Your task to perform on an android device: Go to privacy settings Image 0: 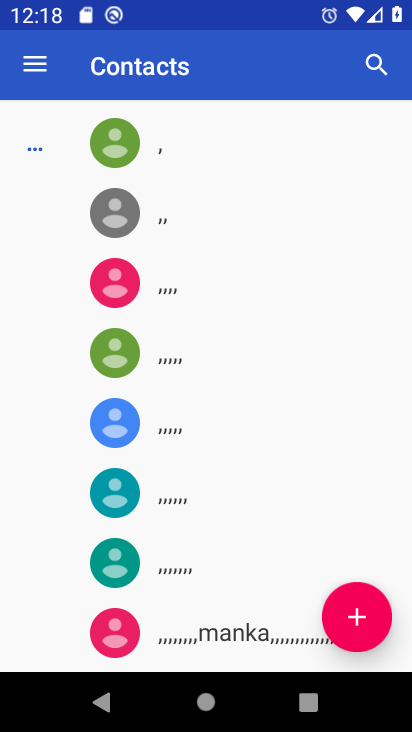
Step 0: press home button
Your task to perform on an android device: Go to privacy settings Image 1: 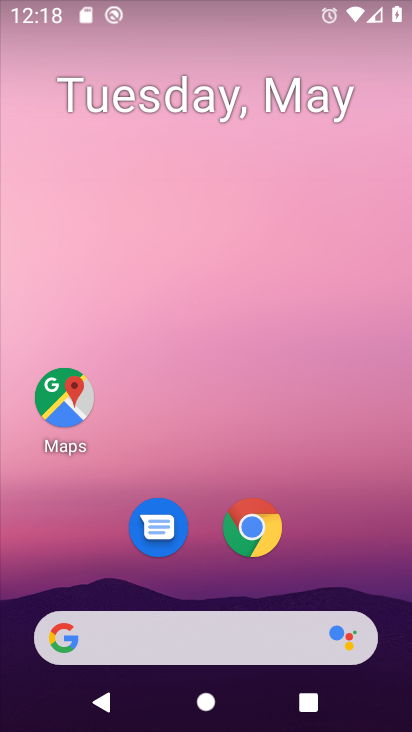
Step 1: drag from (261, 691) to (272, 140)
Your task to perform on an android device: Go to privacy settings Image 2: 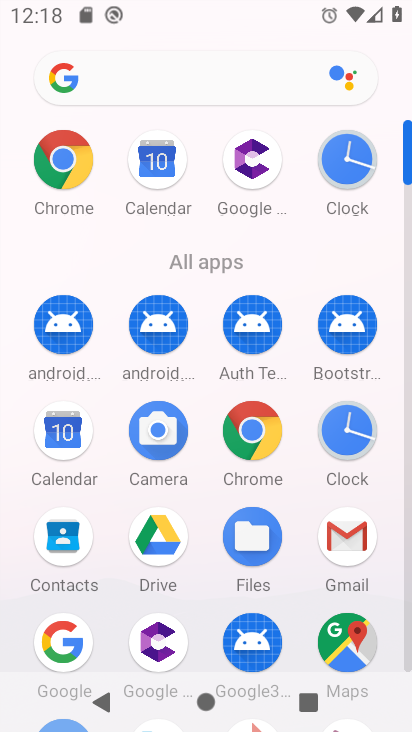
Step 2: drag from (283, 655) to (264, 189)
Your task to perform on an android device: Go to privacy settings Image 3: 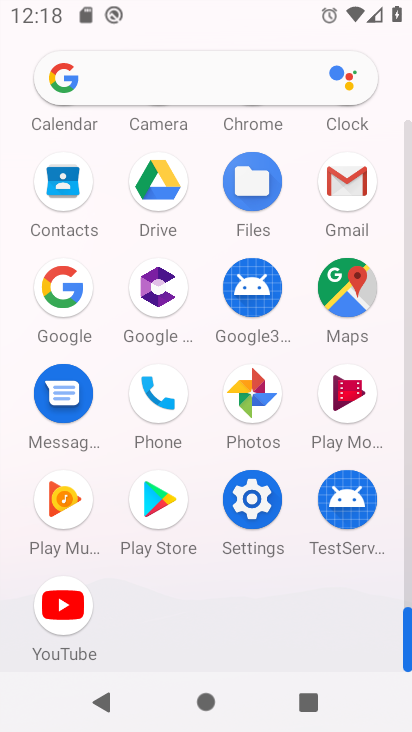
Step 3: click (261, 506)
Your task to perform on an android device: Go to privacy settings Image 4: 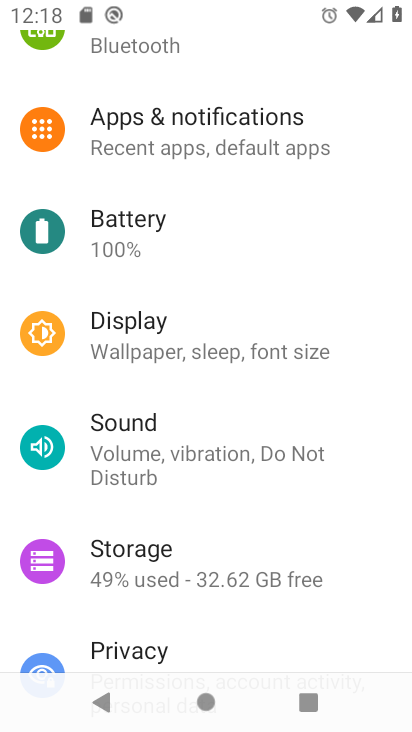
Step 4: click (192, 651)
Your task to perform on an android device: Go to privacy settings Image 5: 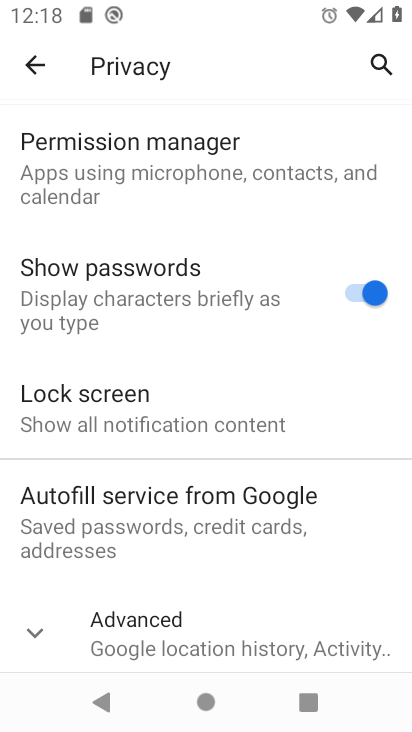
Step 5: task complete